Your task to perform on an android device: Go to internet settings Image 0: 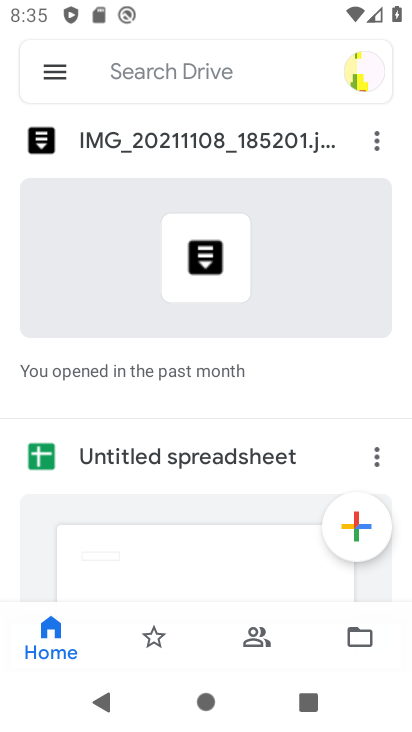
Step 0: press home button
Your task to perform on an android device: Go to internet settings Image 1: 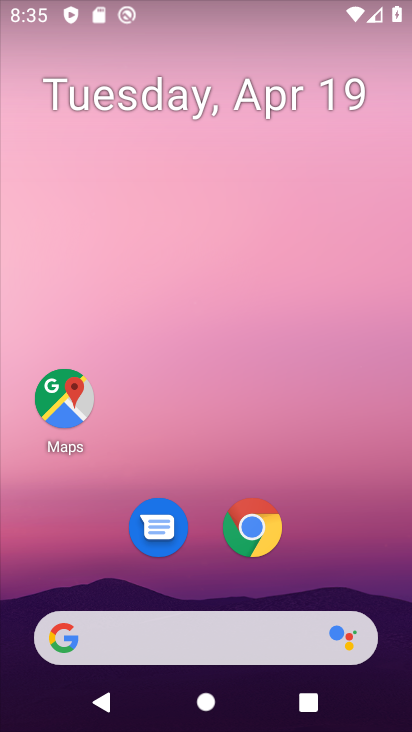
Step 1: drag from (316, 568) to (259, 140)
Your task to perform on an android device: Go to internet settings Image 2: 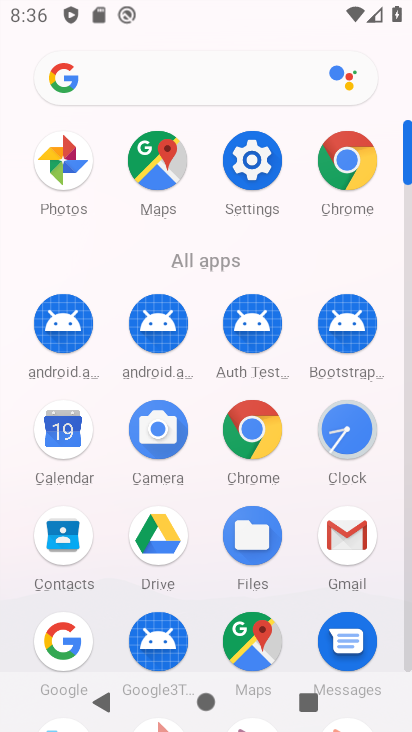
Step 2: click (265, 157)
Your task to perform on an android device: Go to internet settings Image 3: 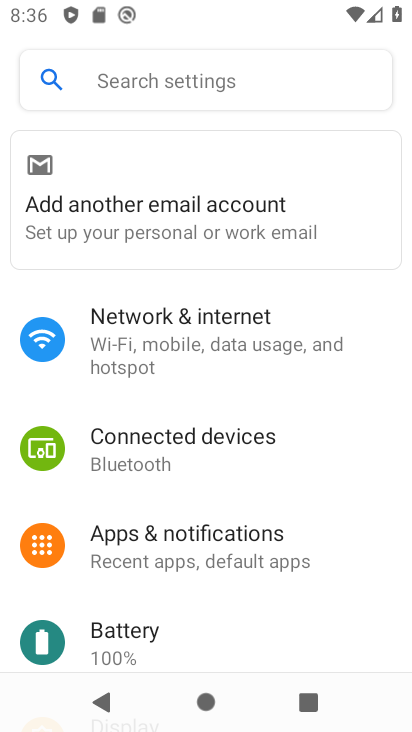
Step 3: click (245, 323)
Your task to perform on an android device: Go to internet settings Image 4: 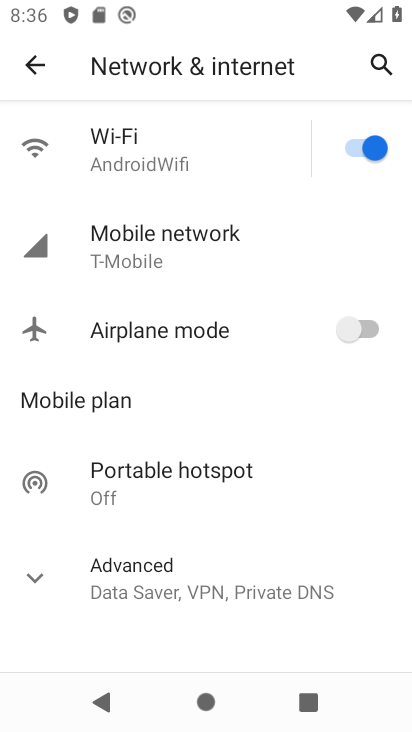
Step 4: click (170, 249)
Your task to perform on an android device: Go to internet settings Image 5: 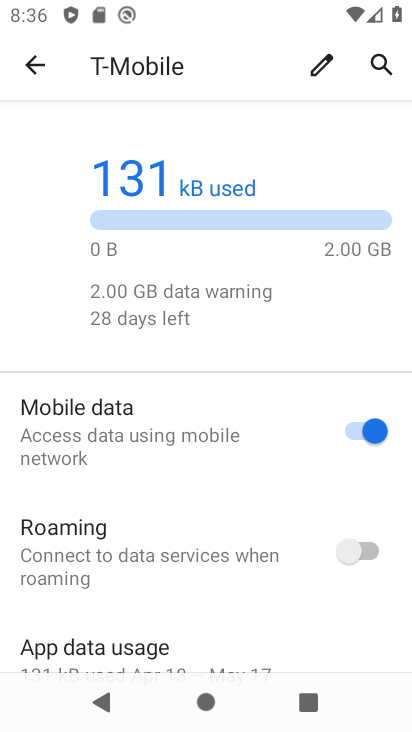
Step 5: drag from (204, 586) to (219, 291)
Your task to perform on an android device: Go to internet settings Image 6: 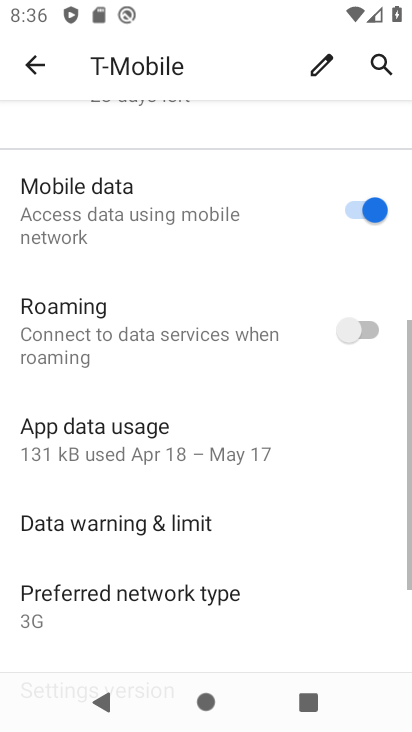
Step 6: click (219, 296)
Your task to perform on an android device: Go to internet settings Image 7: 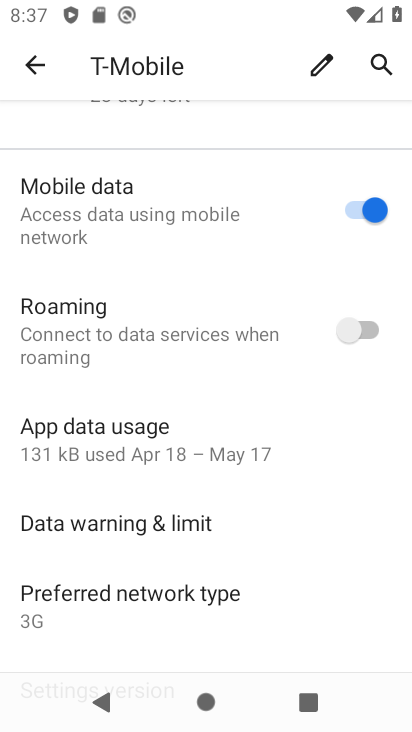
Step 7: task complete